Your task to perform on an android device: turn off translation in the chrome app Image 0: 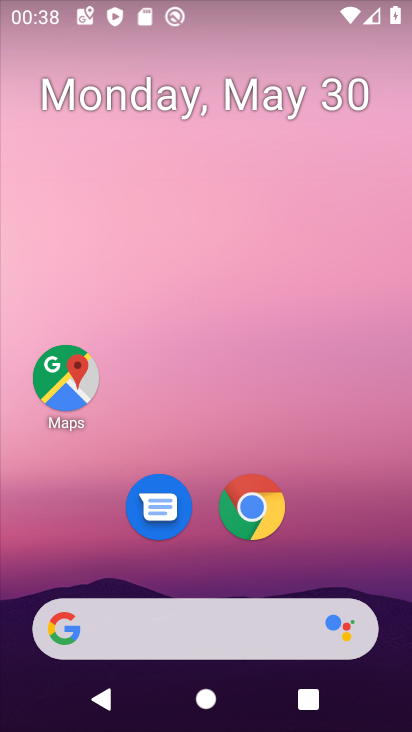
Step 0: drag from (292, 512) to (270, 153)
Your task to perform on an android device: turn off translation in the chrome app Image 1: 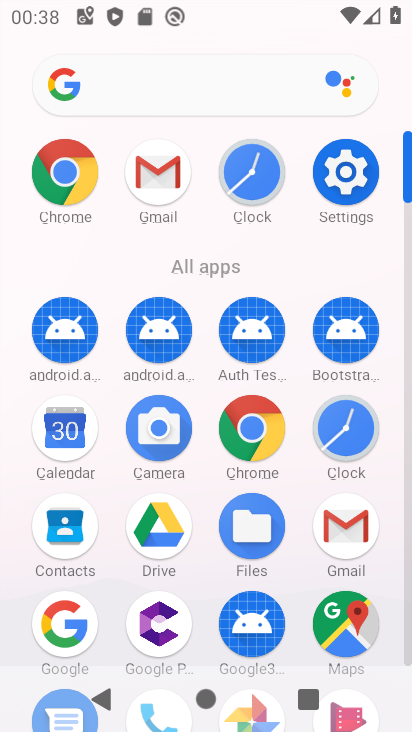
Step 1: click (255, 405)
Your task to perform on an android device: turn off translation in the chrome app Image 2: 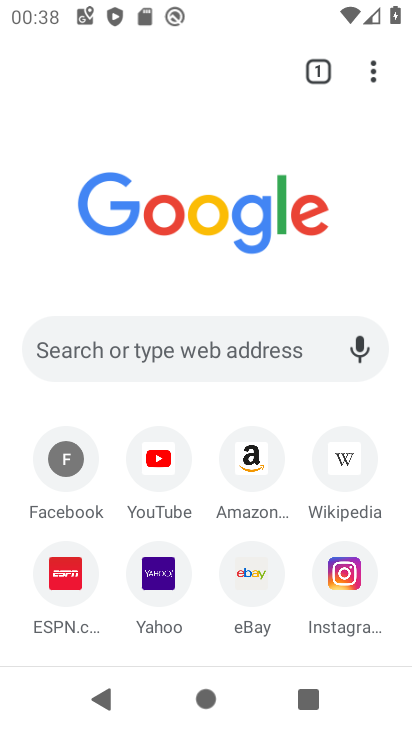
Step 2: click (371, 75)
Your task to perform on an android device: turn off translation in the chrome app Image 3: 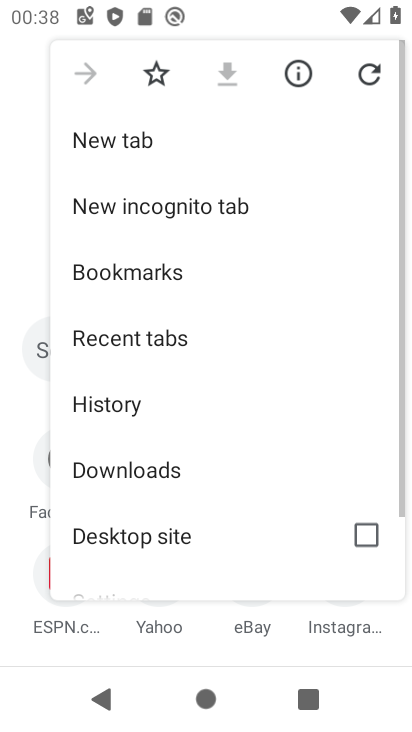
Step 3: drag from (193, 465) to (220, 196)
Your task to perform on an android device: turn off translation in the chrome app Image 4: 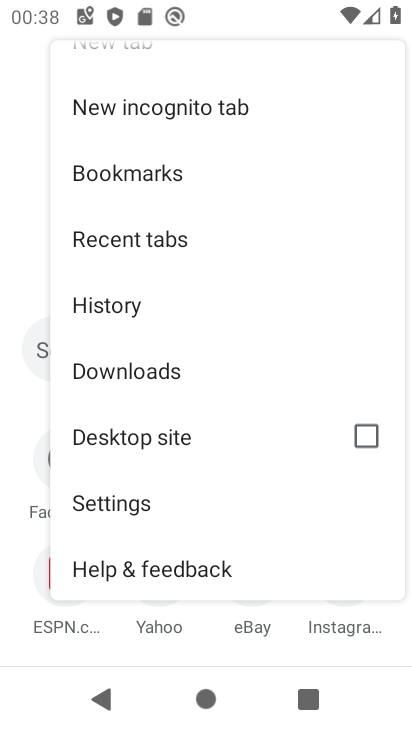
Step 4: click (97, 508)
Your task to perform on an android device: turn off translation in the chrome app Image 5: 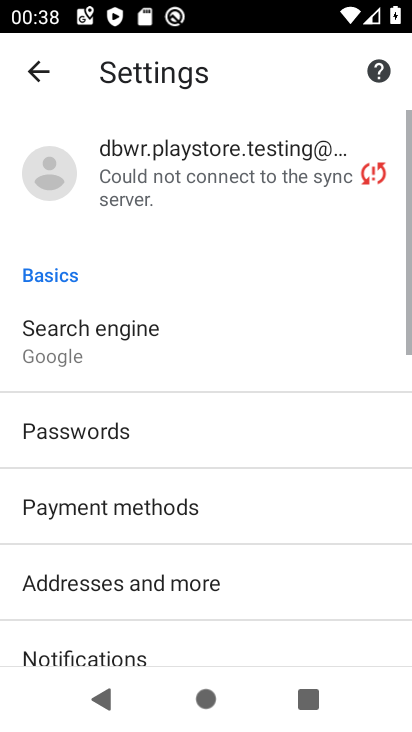
Step 5: drag from (147, 629) to (166, 332)
Your task to perform on an android device: turn off translation in the chrome app Image 6: 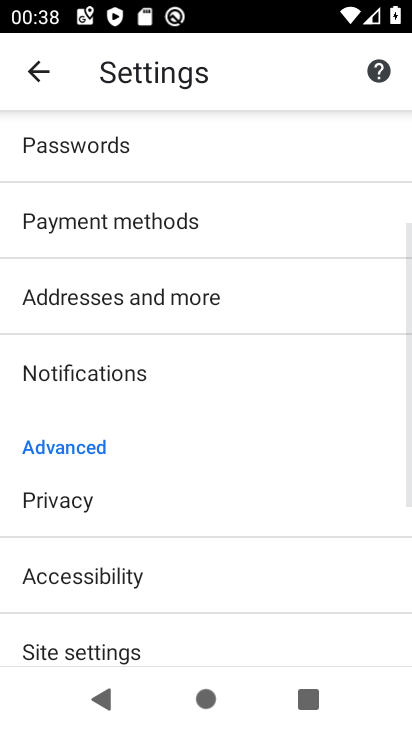
Step 6: drag from (113, 604) to (201, 226)
Your task to perform on an android device: turn off translation in the chrome app Image 7: 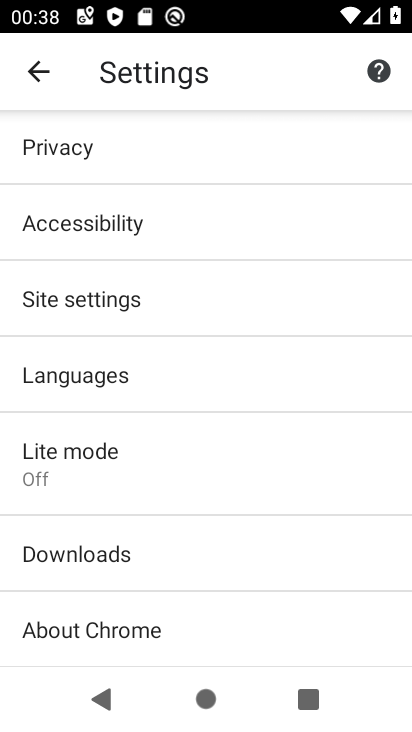
Step 7: click (140, 370)
Your task to perform on an android device: turn off translation in the chrome app Image 8: 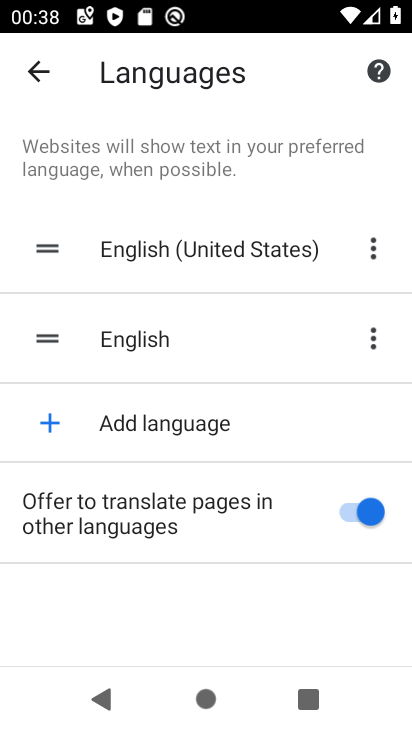
Step 8: click (354, 510)
Your task to perform on an android device: turn off translation in the chrome app Image 9: 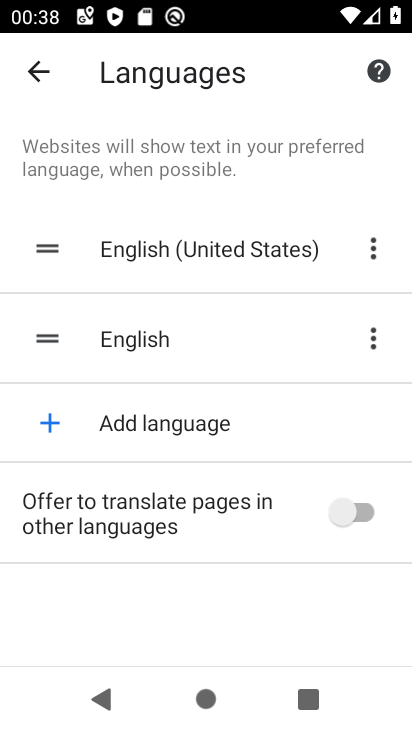
Step 9: task complete